Your task to perform on an android device: stop showing notifications on the lock screen Image 0: 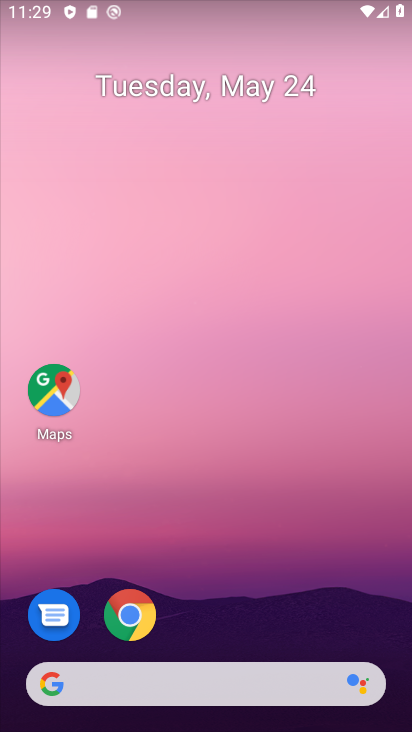
Step 0: drag from (248, 626) to (245, 223)
Your task to perform on an android device: stop showing notifications on the lock screen Image 1: 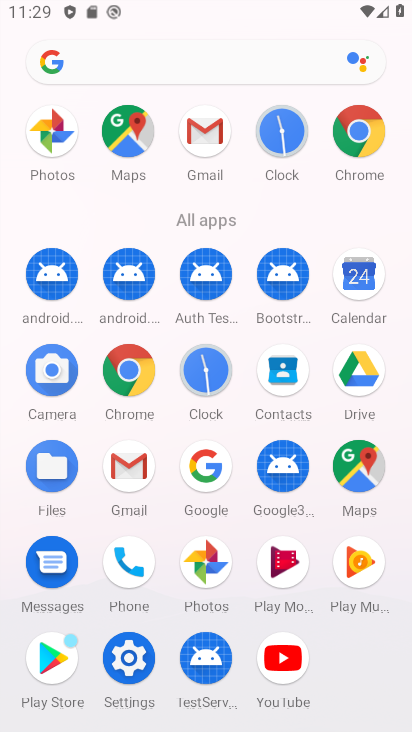
Step 1: click (129, 662)
Your task to perform on an android device: stop showing notifications on the lock screen Image 2: 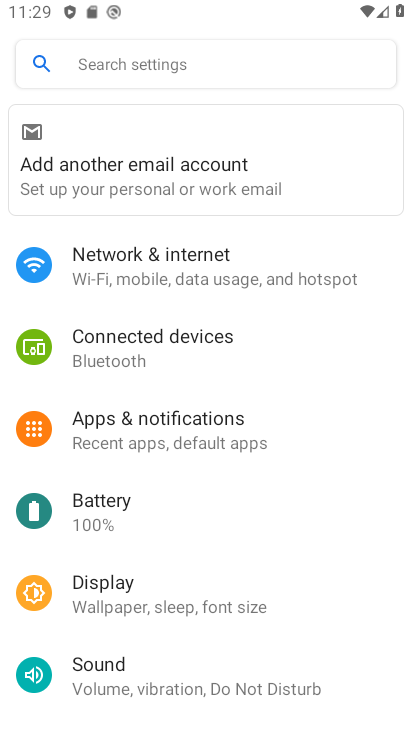
Step 2: click (153, 421)
Your task to perform on an android device: stop showing notifications on the lock screen Image 3: 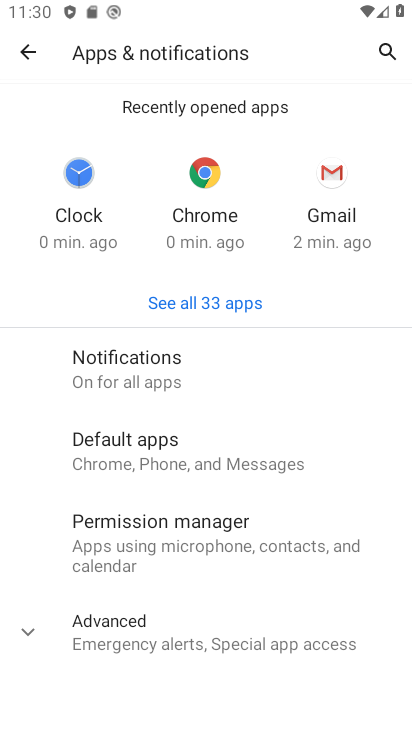
Step 3: click (133, 364)
Your task to perform on an android device: stop showing notifications on the lock screen Image 4: 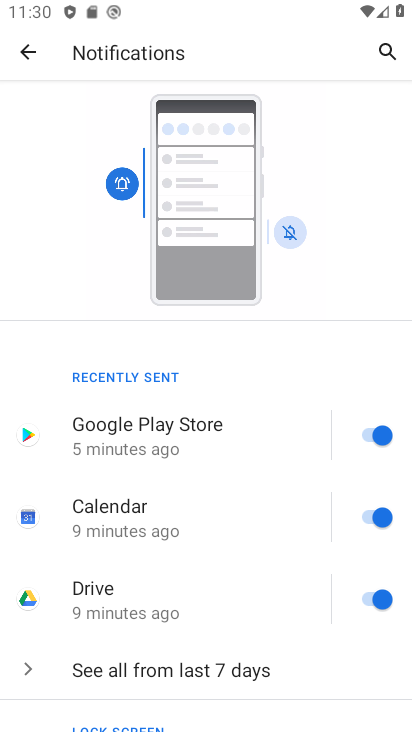
Step 4: drag from (146, 569) to (192, 432)
Your task to perform on an android device: stop showing notifications on the lock screen Image 5: 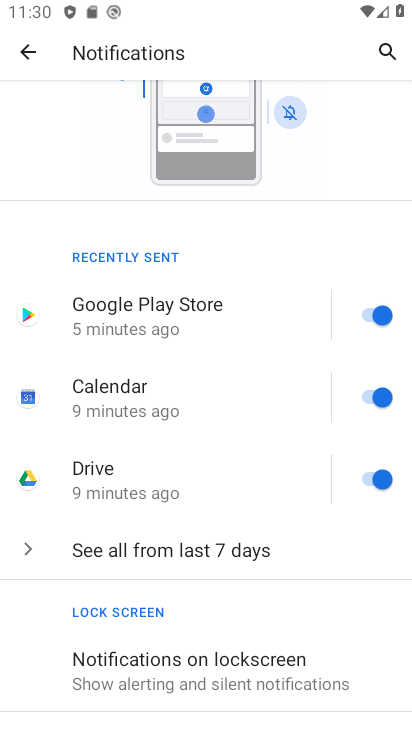
Step 5: drag from (182, 627) to (198, 542)
Your task to perform on an android device: stop showing notifications on the lock screen Image 6: 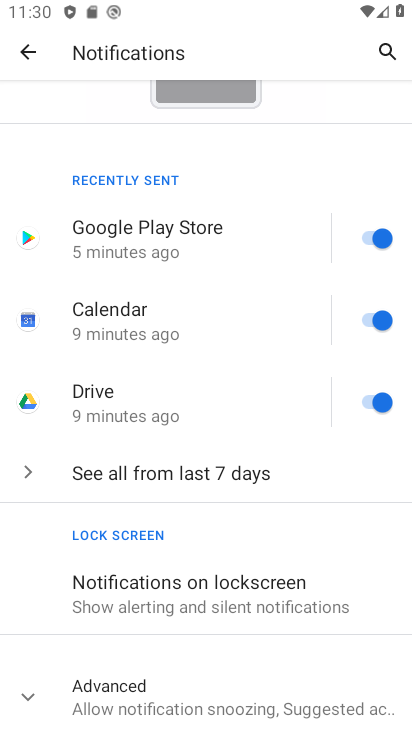
Step 6: click (236, 599)
Your task to perform on an android device: stop showing notifications on the lock screen Image 7: 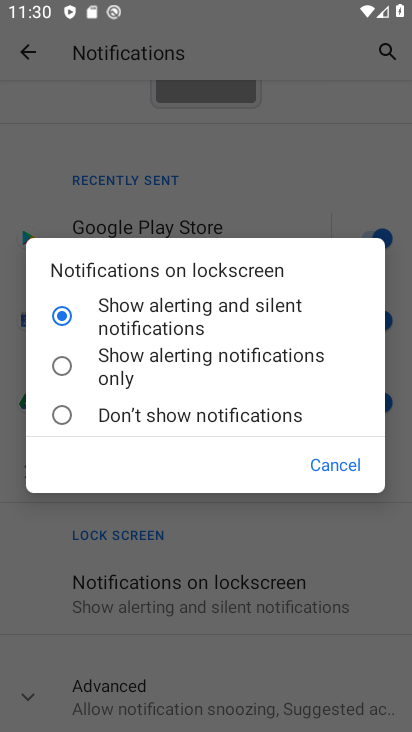
Step 7: click (62, 417)
Your task to perform on an android device: stop showing notifications on the lock screen Image 8: 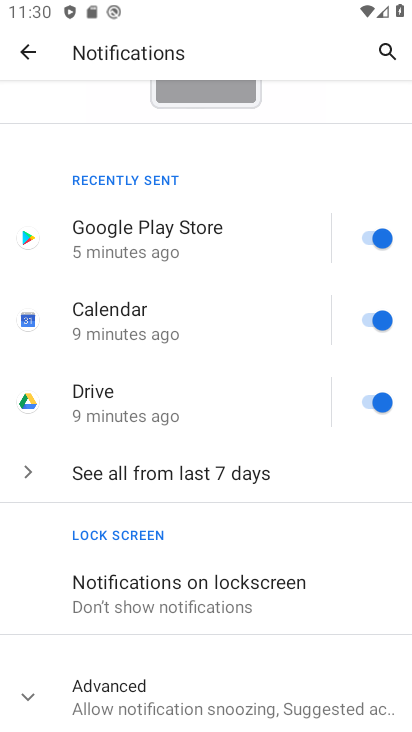
Step 8: task complete